Your task to perform on an android device: Open the web browser Image 0: 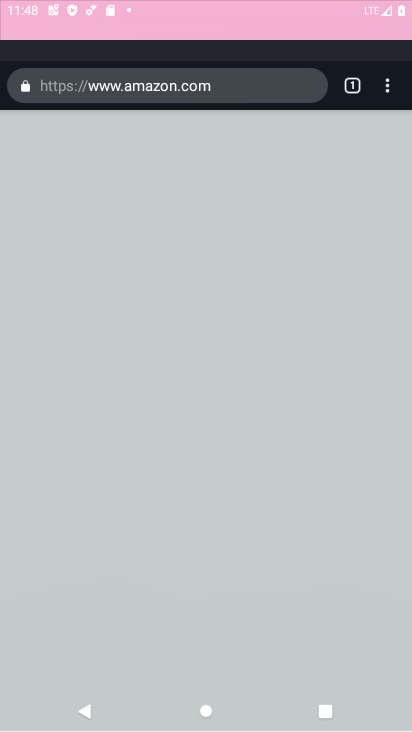
Step 0: press home button
Your task to perform on an android device: Open the web browser Image 1: 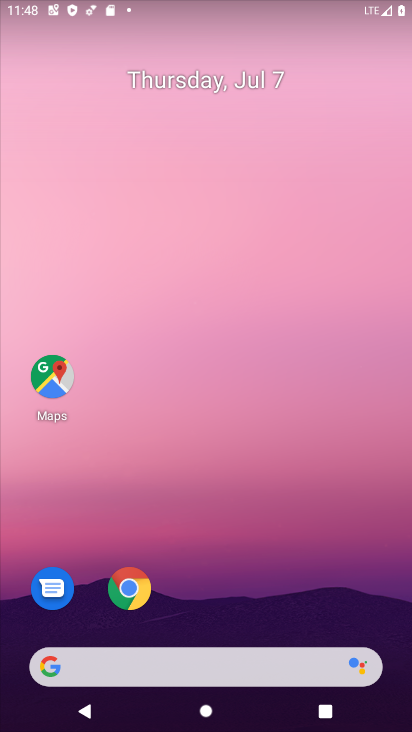
Step 1: drag from (214, 613) to (220, 107)
Your task to perform on an android device: Open the web browser Image 2: 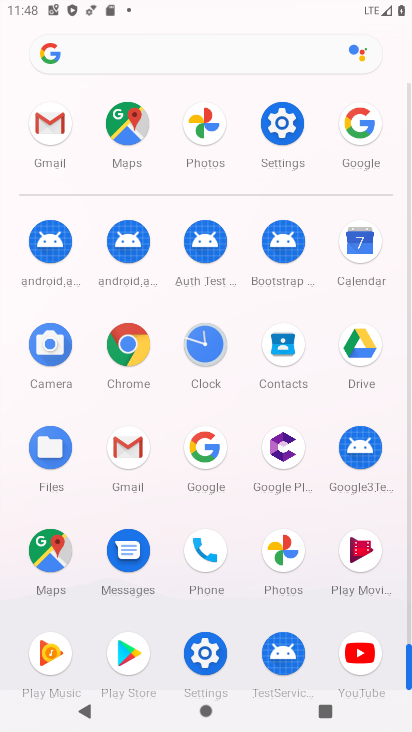
Step 2: click (355, 117)
Your task to perform on an android device: Open the web browser Image 3: 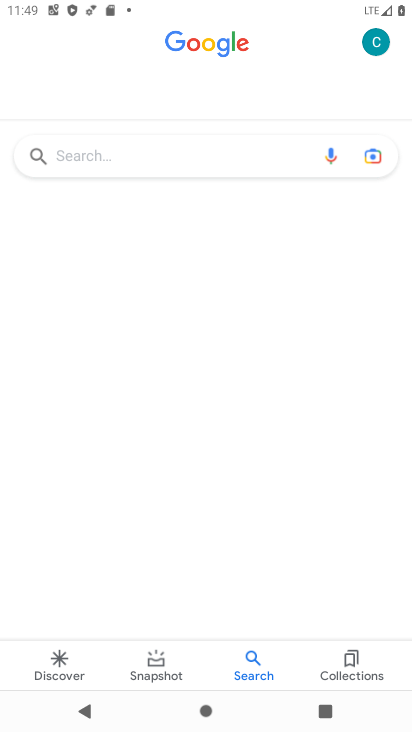
Step 3: task complete